Your task to perform on an android device: toggle improve location accuracy Image 0: 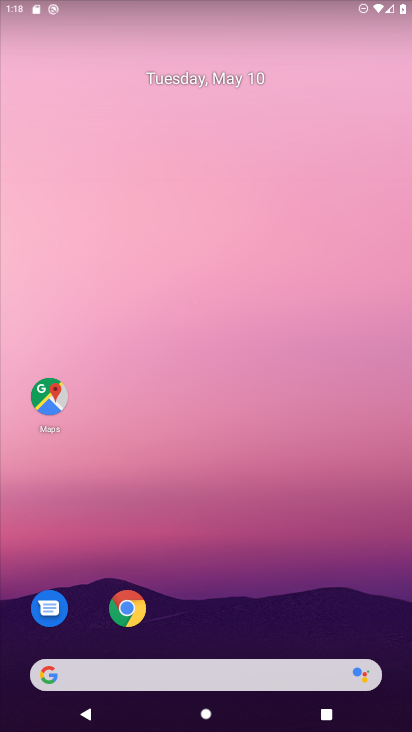
Step 0: drag from (270, 542) to (267, 127)
Your task to perform on an android device: toggle improve location accuracy Image 1: 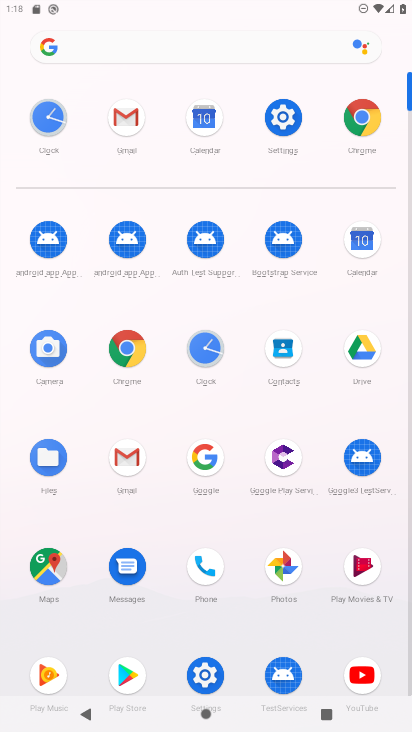
Step 1: click (275, 131)
Your task to perform on an android device: toggle improve location accuracy Image 2: 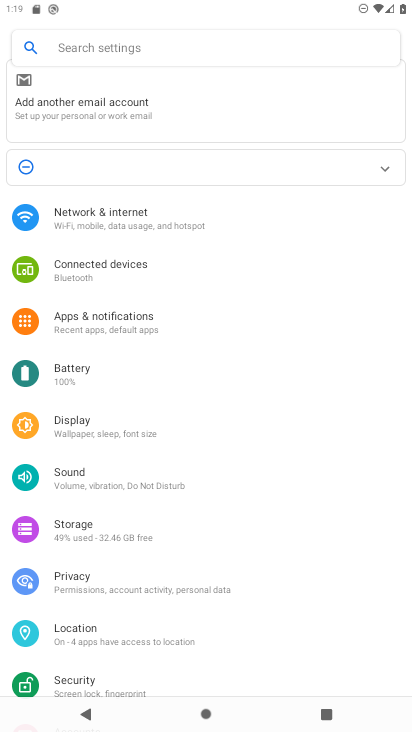
Step 2: click (90, 638)
Your task to perform on an android device: toggle improve location accuracy Image 3: 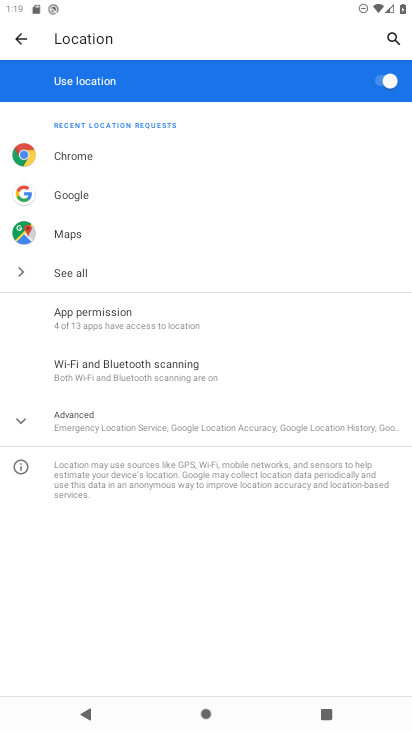
Step 3: click (209, 418)
Your task to perform on an android device: toggle improve location accuracy Image 4: 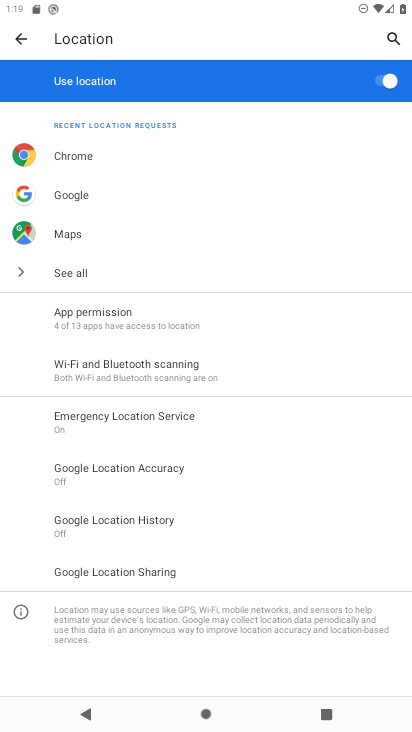
Step 4: click (174, 471)
Your task to perform on an android device: toggle improve location accuracy Image 5: 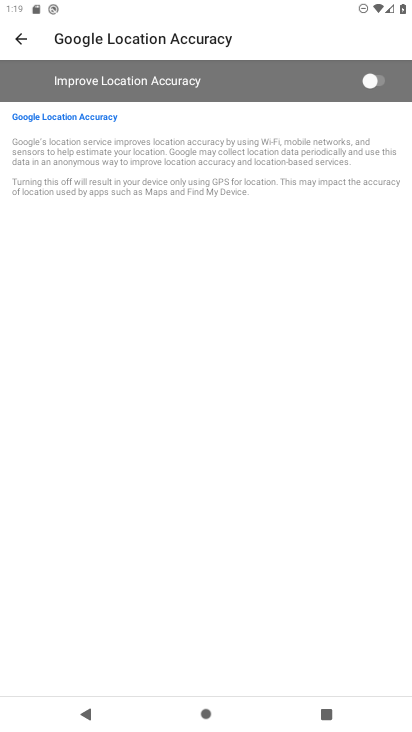
Step 5: click (388, 81)
Your task to perform on an android device: toggle improve location accuracy Image 6: 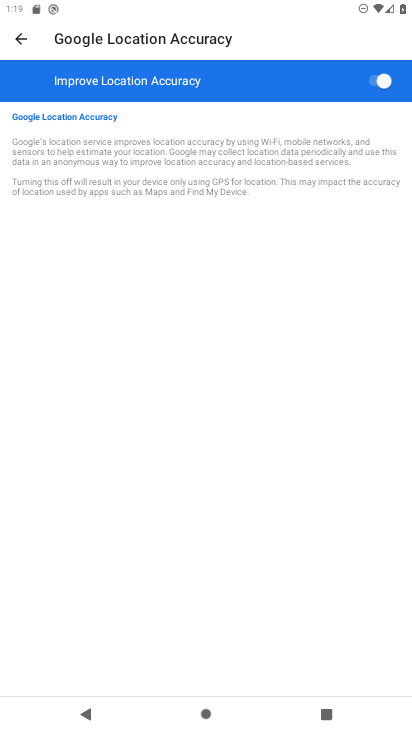
Step 6: task complete